Your task to perform on an android device: turn on bluetooth scan Image 0: 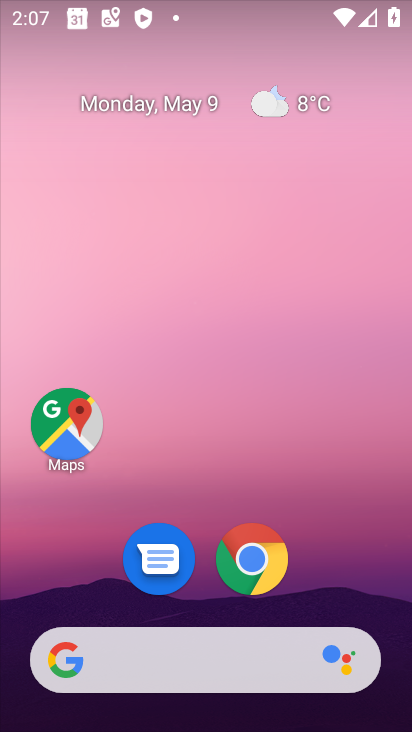
Step 0: drag from (337, 559) to (188, 19)
Your task to perform on an android device: turn on bluetooth scan Image 1: 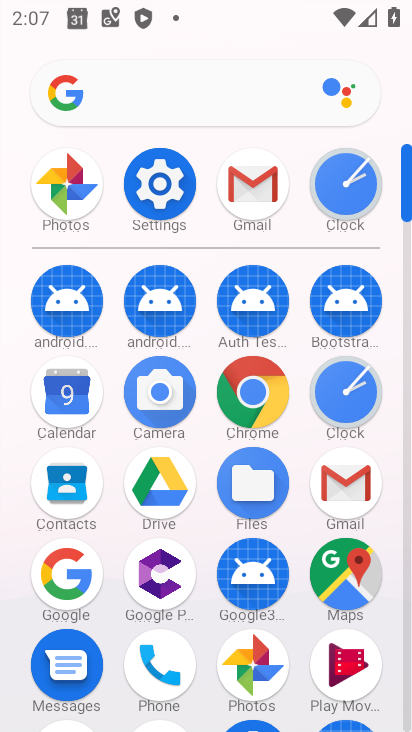
Step 1: click (160, 181)
Your task to perform on an android device: turn on bluetooth scan Image 2: 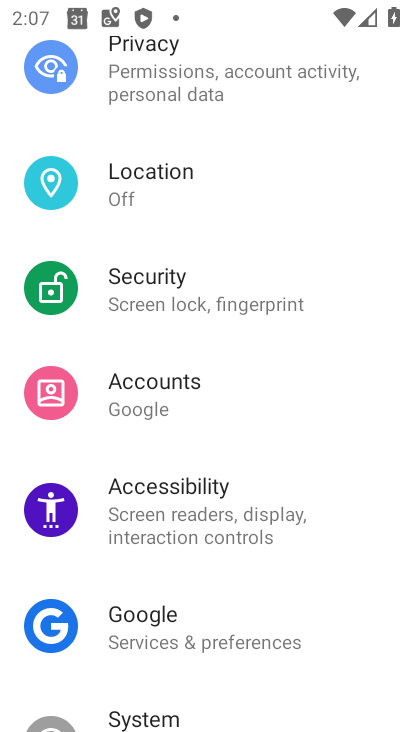
Step 2: drag from (208, 580) to (183, 269)
Your task to perform on an android device: turn on bluetooth scan Image 3: 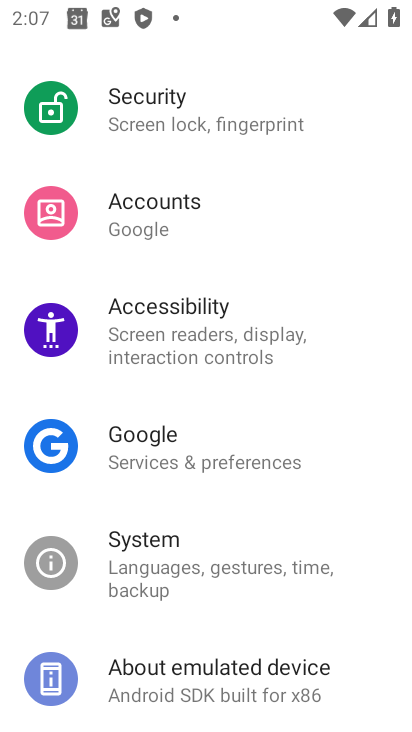
Step 3: drag from (228, 263) to (305, 665)
Your task to perform on an android device: turn on bluetooth scan Image 4: 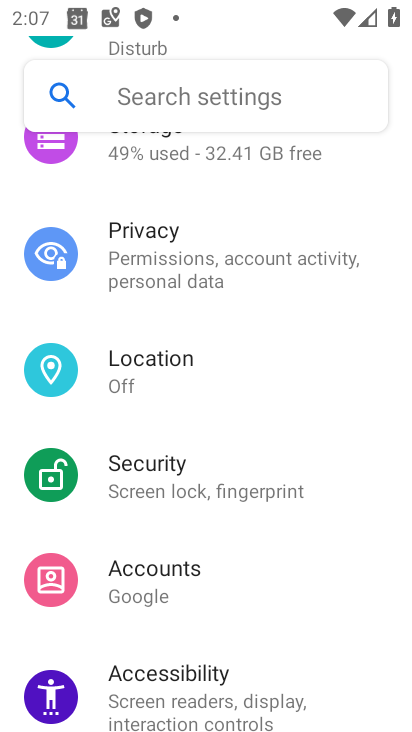
Step 4: click (146, 353)
Your task to perform on an android device: turn on bluetooth scan Image 5: 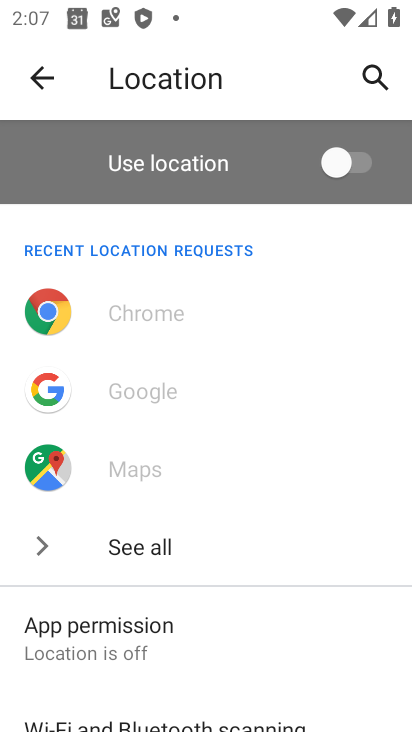
Step 5: drag from (167, 592) to (104, 223)
Your task to perform on an android device: turn on bluetooth scan Image 6: 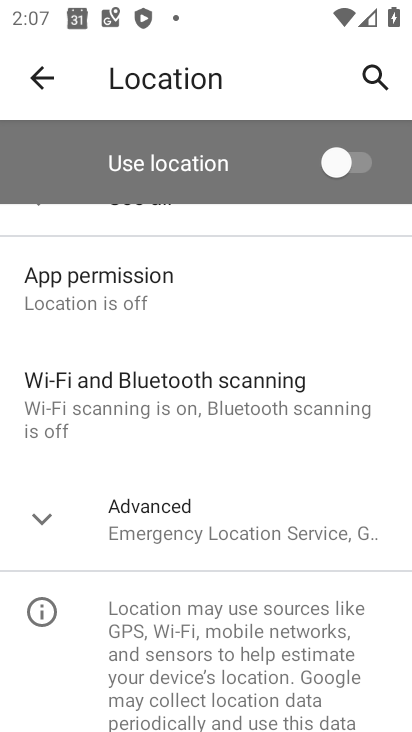
Step 6: click (111, 387)
Your task to perform on an android device: turn on bluetooth scan Image 7: 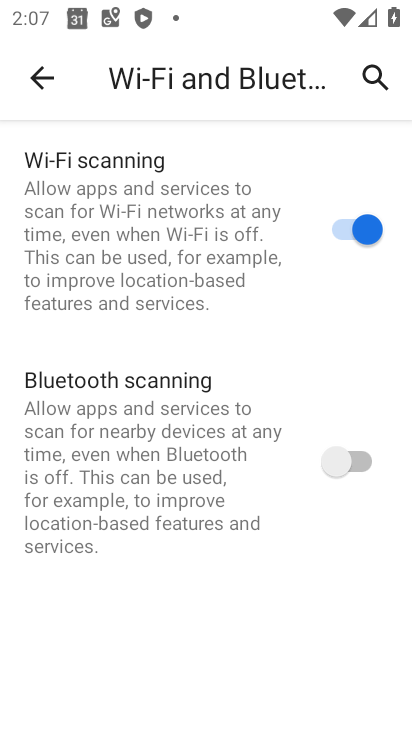
Step 7: click (332, 455)
Your task to perform on an android device: turn on bluetooth scan Image 8: 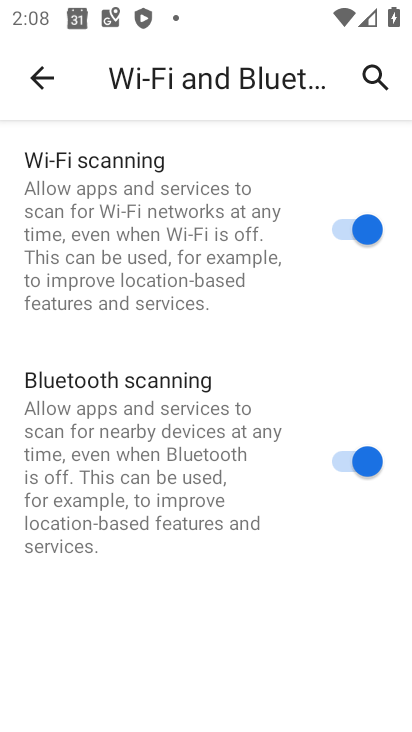
Step 8: task complete